Your task to perform on an android device: Show me popular videos on Youtube Image 0: 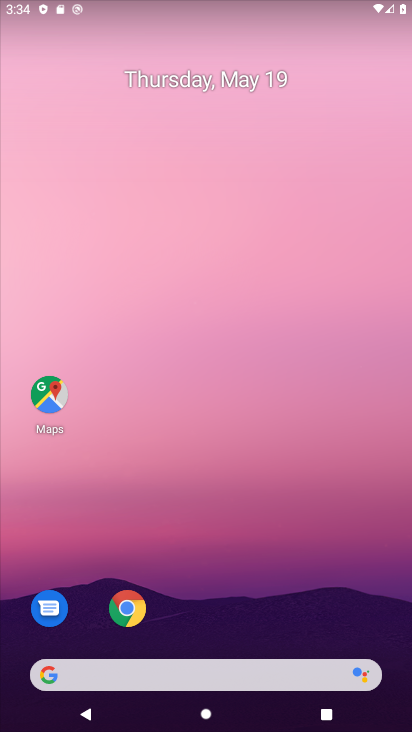
Step 0: drag from (233, 731) to (251, 261)
Your task to perform on an android device: Show me popular videos on Youtube Image 1: 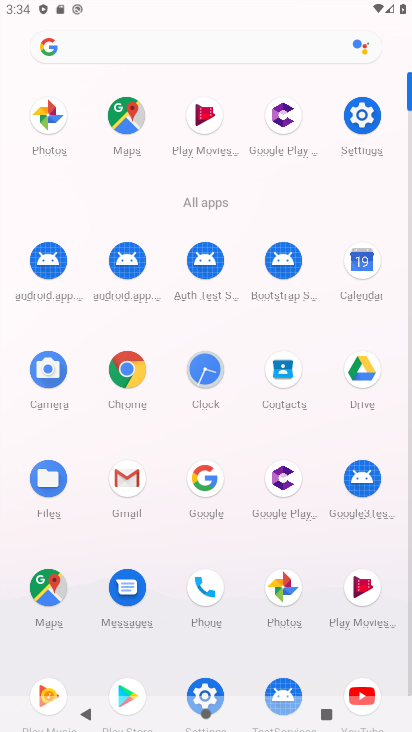
Step 1: drag from (324, 619) to (342, 330)
Your task to perform on an android device: Show me popular videos on Youtube Image 2: 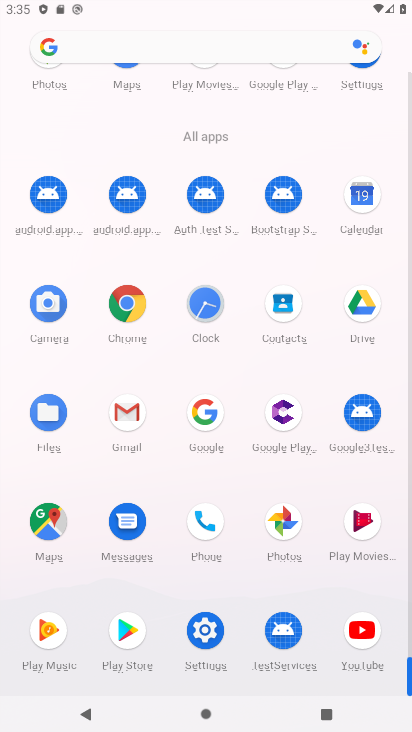
Step 2: click (367, 625)
Your task to perform on an android device: Show me popular videos on Youtube Image 3: 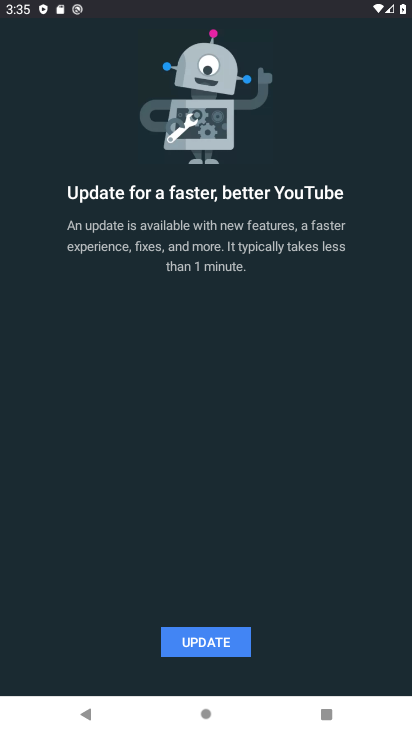
Step 3: task complete